Your task to perform on an android device: toggle location history Image 0: 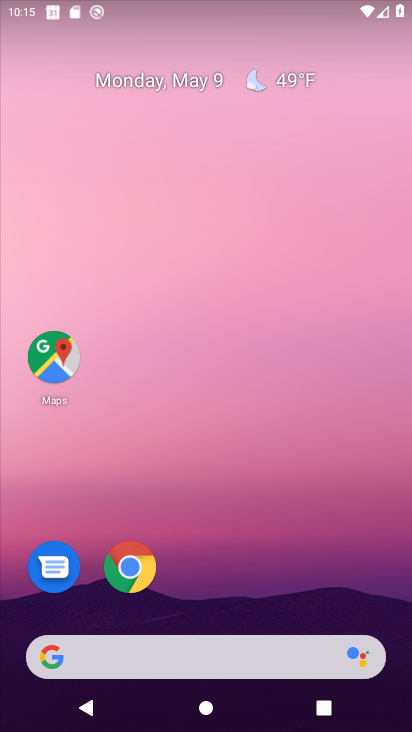
Step 0: drag from (187, 607) to (196, 229)
Your task to perform on an android device: toggle location history Image 1: 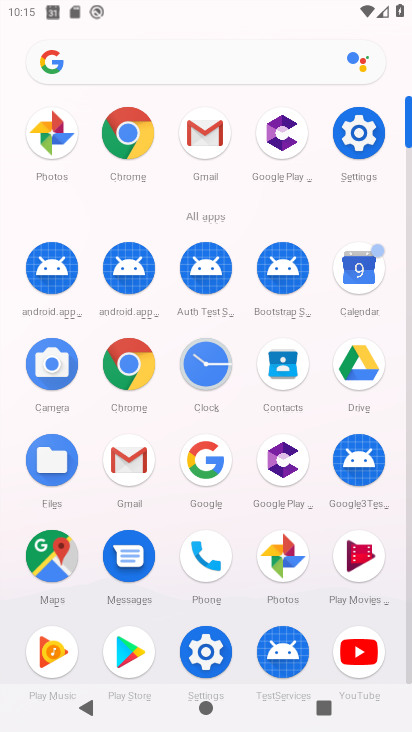
Step 1: click (360, 139)
Your task to perform on an android device: toggle location history Image 2: 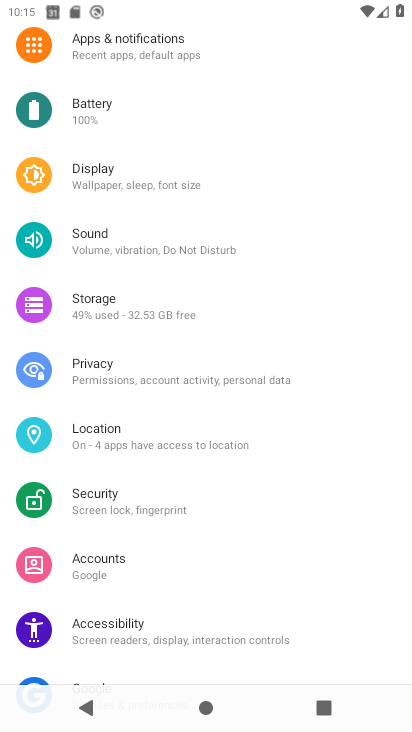
Step 2: click (120, 428)
Your task to perform on an android device: toggle location history Image 3: 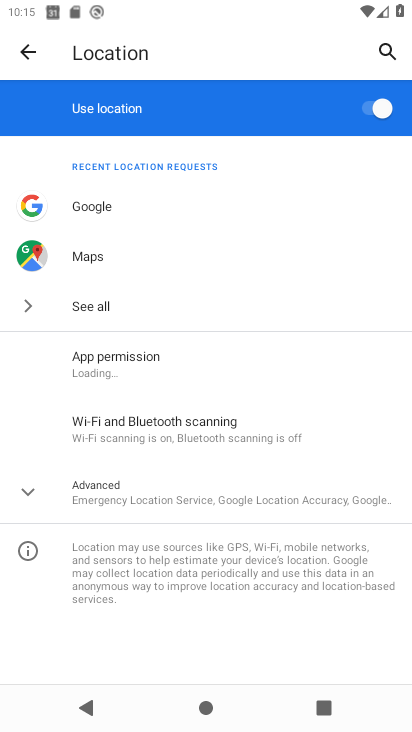
Step 3: click (118, 488)
Your task to perform on an android device: toggle location history Image 4: 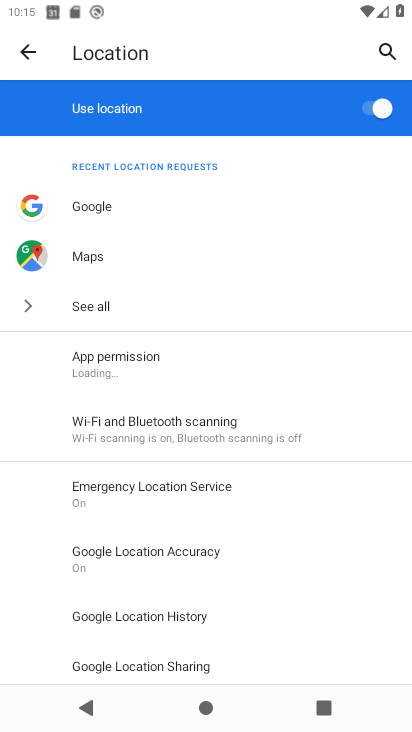
Step 4: click (123, 623)
Your task to perform on an android device: toggle location history Image 5: 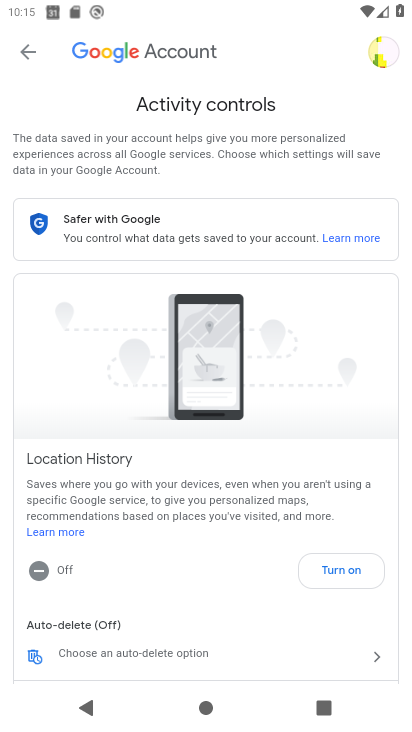
Step 5: click (326, 570)
Your task to perform on an android device: toggle location history Image 6: 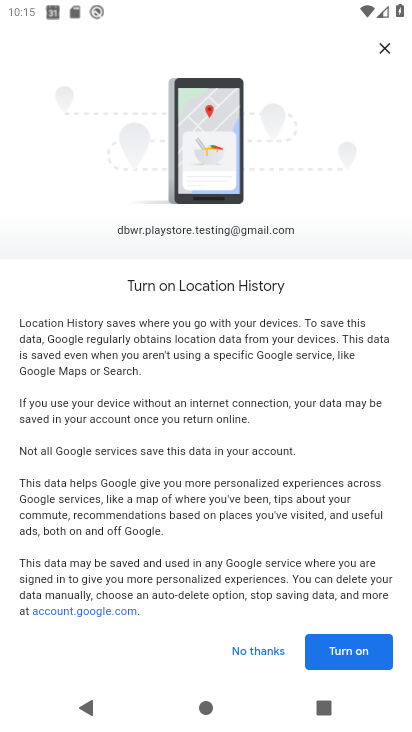
Step 6: click (322, 657)
Your task to perform on an android device: toggle location history Image 7: 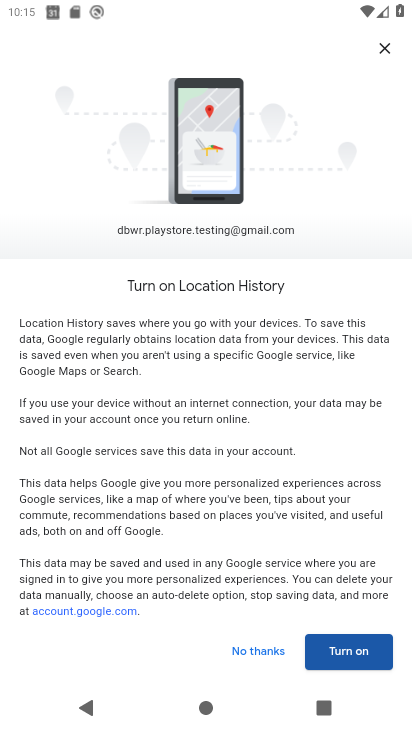
Step 7: click (349, 647)
Your task to perform on an android device: toggle location history Image 8: 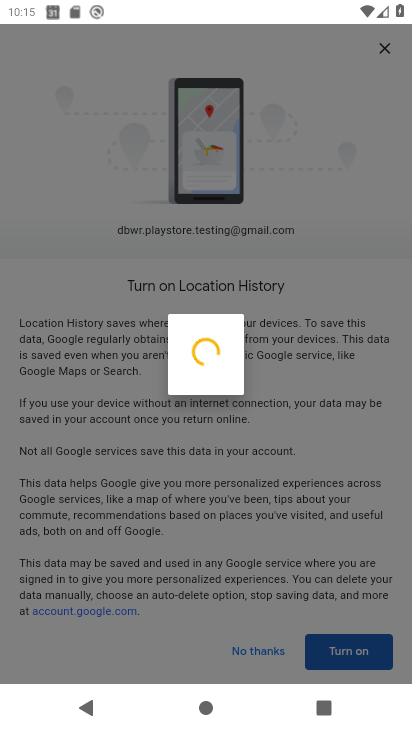
Step 8: click (351, 653)
Your task to perform on an android device: toggle location history Image 9: 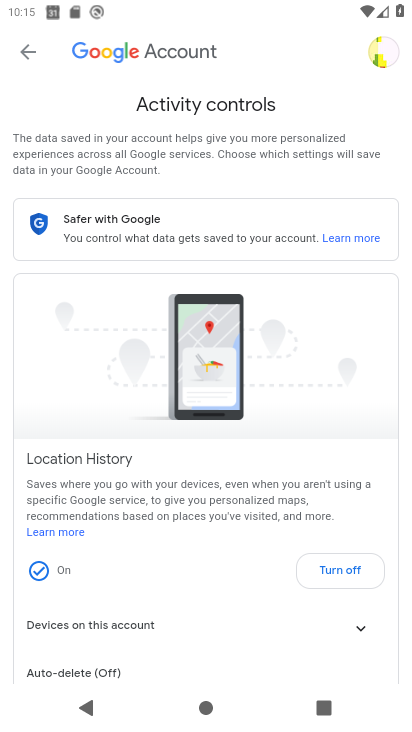
Step 9: task complete